Your task to perform on an android device: empty trash in the gmail app Image 0: 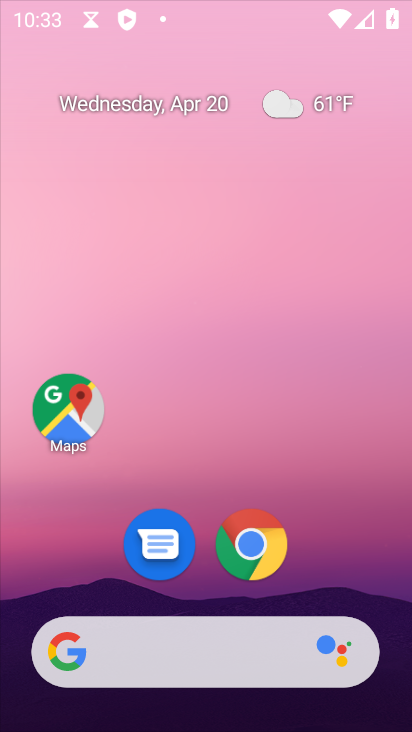
Step 0: drag from (285, 263) to (323, 194)
Your task to perform on an android device: empty trash in the gmail app Image 1: 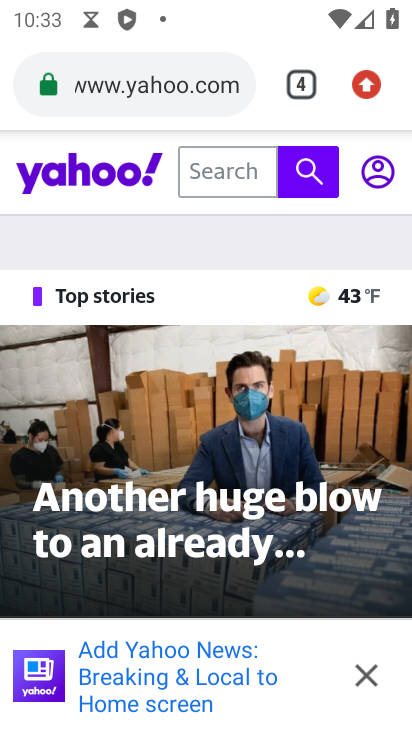
Step 1: press home button
Your task to perform on an android device: empty trash in the gmail app Image 2: 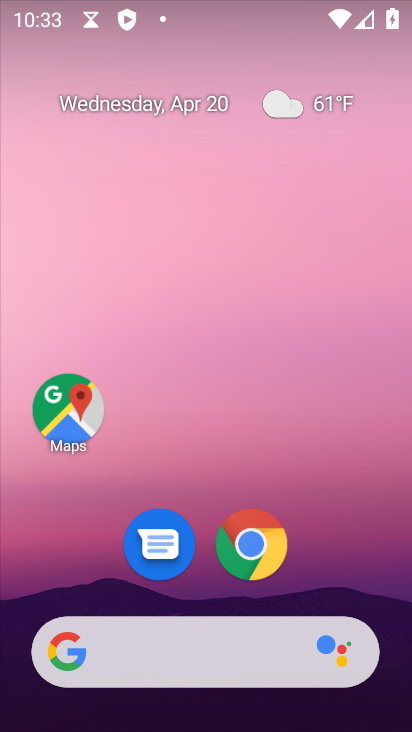
Step 2: drag from (181, 660) to (315, 73)
Your task to perform on an android device: empty trash in the gmail app Image 3: 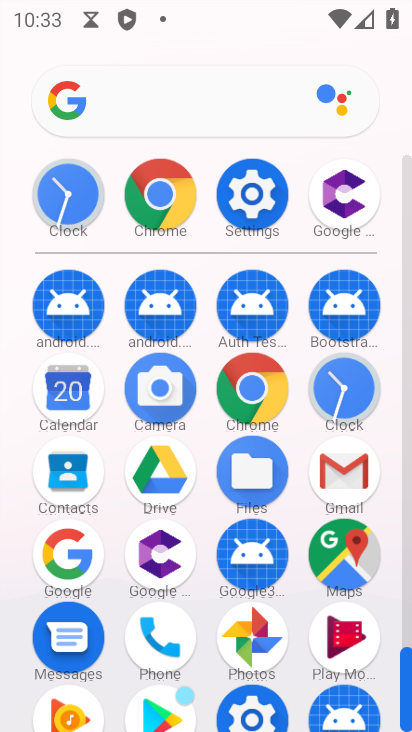
Step 3: click (337, 471)
Your task to perform on an android device: empty trash in the gmail app Image 4: 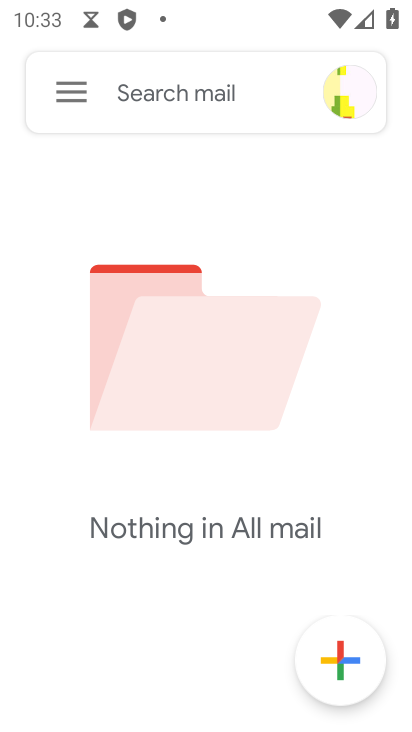
Step 4: click (74, 93)
Your task to perform on an android device: empty trash in the gmail app Image 5: 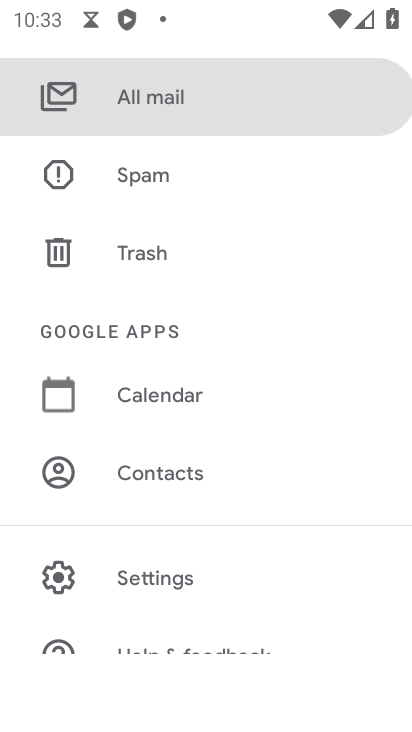
Step 5: click (139, 256)
Your task to perform on an android device: empty trash in the gmail app Image 6: 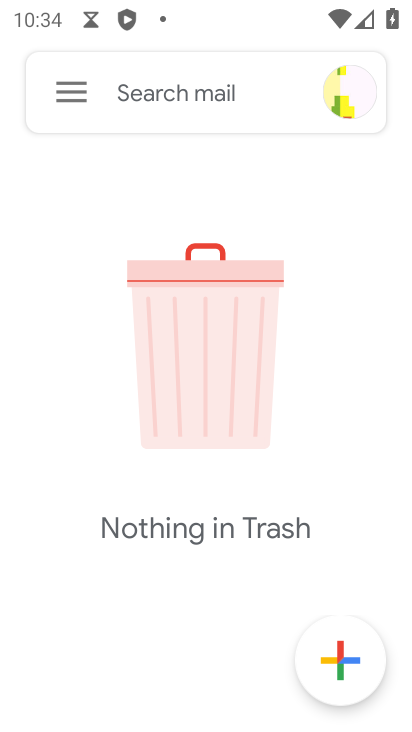
Step 6: task complete